Your task to perform on an android device: set an alarm Image 0: 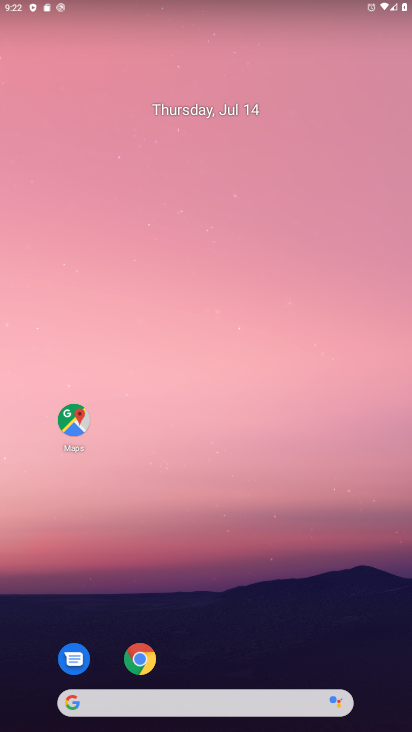
Step 0: drag from (236, 620) to (238, 192)
Your task to perform on an android device: set an alarm Image 1: 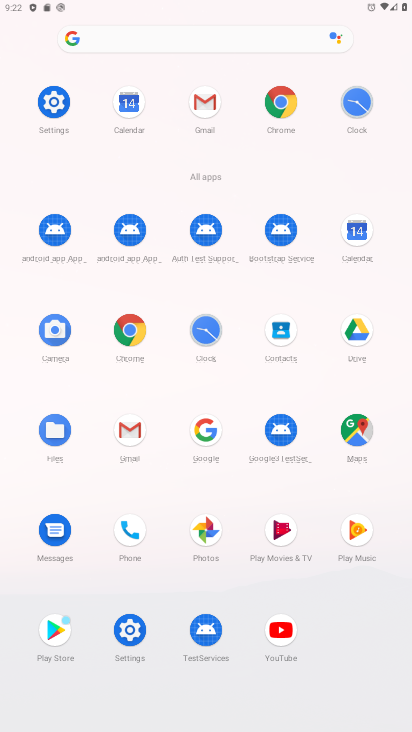
Step 1: click (203, 318)
Your task to perform on an android device: set an alarm Image 2: 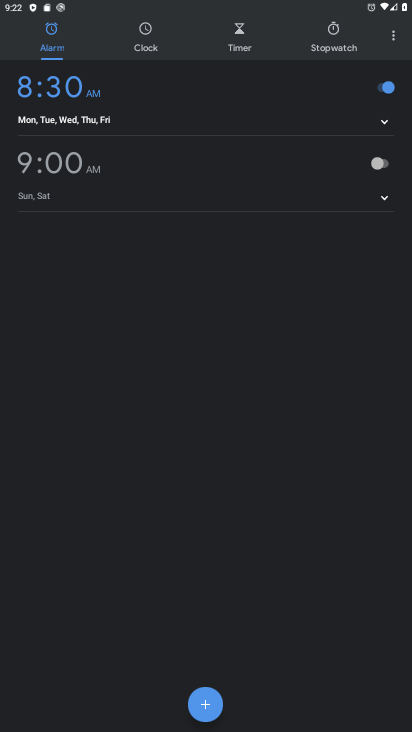
Step 2: task complete